Your task to perform on an android device: Do I have any events this weekend? Image 0: 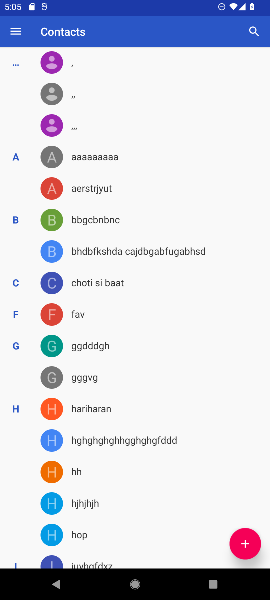
Step 0: click (232, 213)
Your task to perform on an android device: Do I have any events this weekend? Image 1: 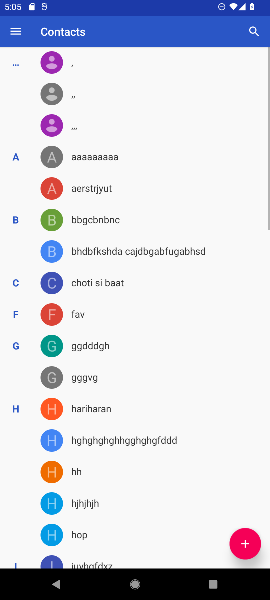
Step 1: press back button
Your task to perform on an android device: Do I have any events this weekend? Image 2: 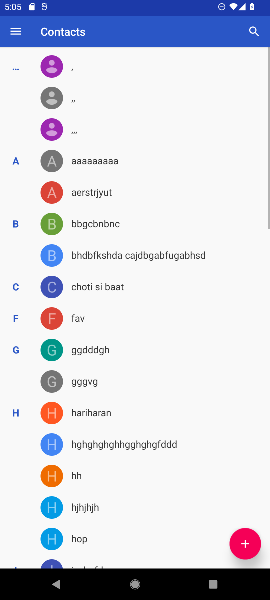
Step 2: press home button
Your task to perform on an android device: Do I have any events this weekend? Image 3: 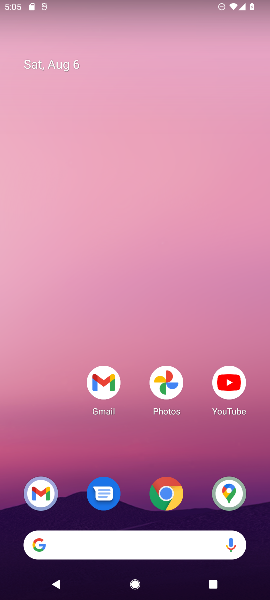
Step 3: press back button
Your task to perform on an android device: Do I have any events this weekend? Image 4: 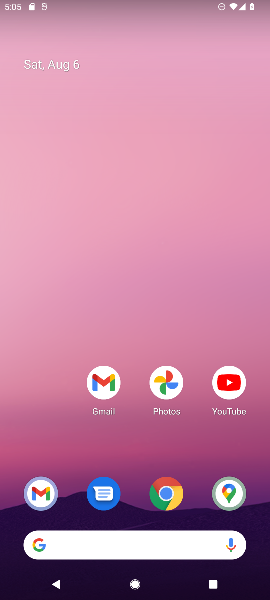
Step 4: drag from (151, 392) to (104, 42)
Your task to perform on an android device: Do I have any events this weekend? Image 5: 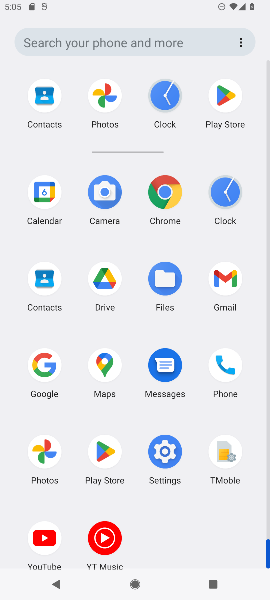
Step 5: click (104, 362)
Your task to perform on an android device: Do I have any events this weekend? Image 6: 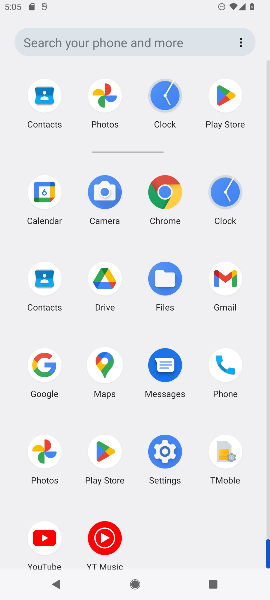
Step 6: click (104, 362)
Your task to perform on an android device: Do I have any events this weekend? Image 7: 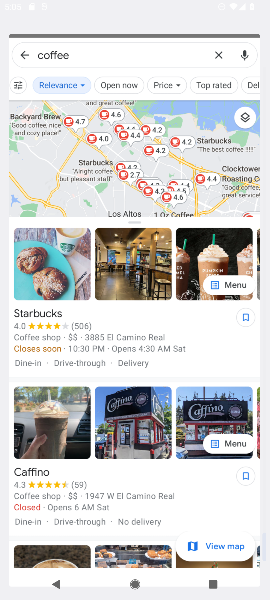
Step 7: click (106, 368)
Your task to perform on an android device: Do I have any events this weekend? Image 8: 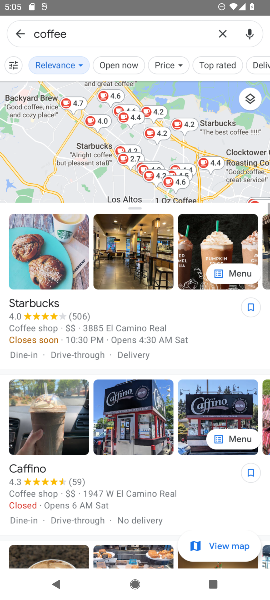
Step 8: click (106, 368)
Your task to perform on an android device: Do I have any events this weekend? Image 9: 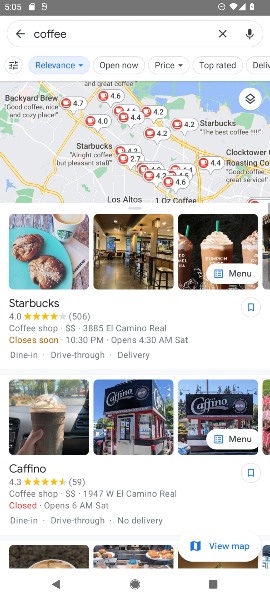
Step 9: click (106, 368)
Your task to perform on an android device: Do I have any events this weekend? Image 10: 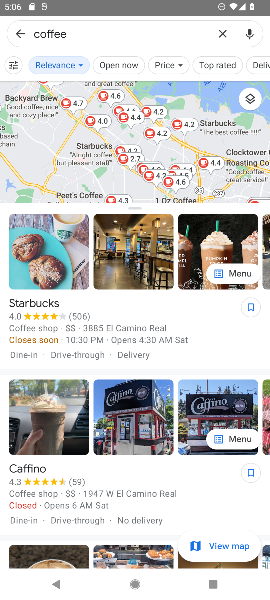
Step 10: click (21, 30)
Your task to perform on an android device: Do I have any events this weekend? Image 11: 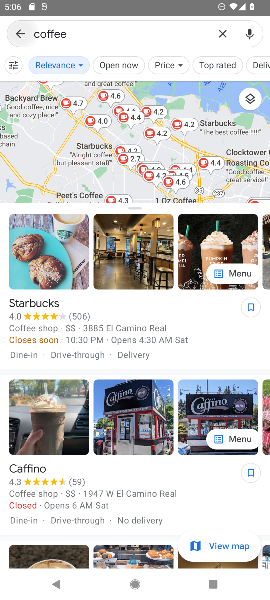
Step 11: click (21, 30)
Your task to perform on an android device: Do I have any events this weekend? Image 12: 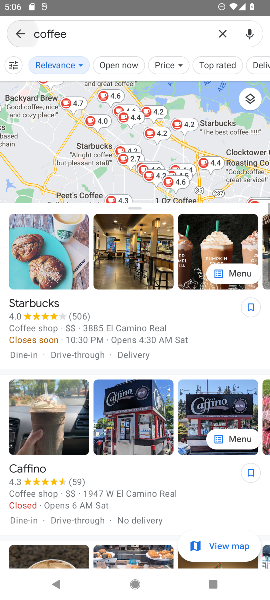
Step 12: click (21, 30)
Your task to perform on an android device: Do I have any events this weekend? Image 13: 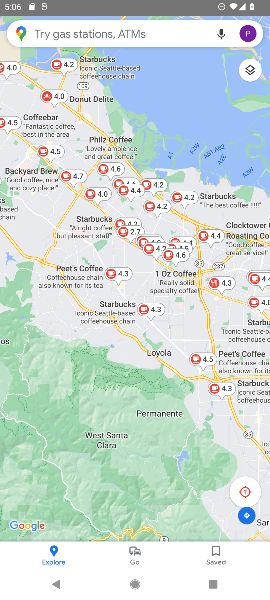
Step 13: click (21, 30)
Your task to perform on an android device: Do I have any events this weekend? Image 14: 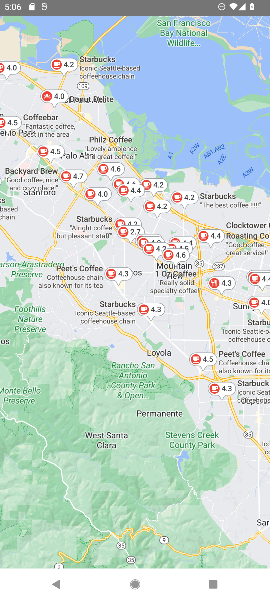
Step 14: click (21, 31)
Your task to perform on an android device: Do I have any events this weekend? Image 15: 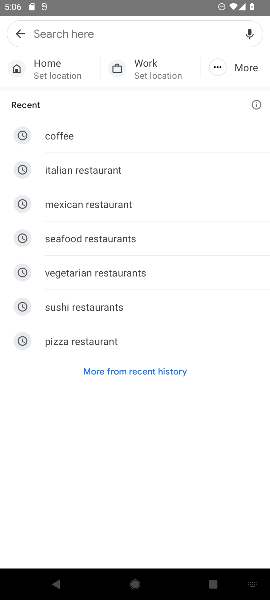
Step 15: press back button
Your task to perform on an android device: Do I have any events this weekend? Image 16: 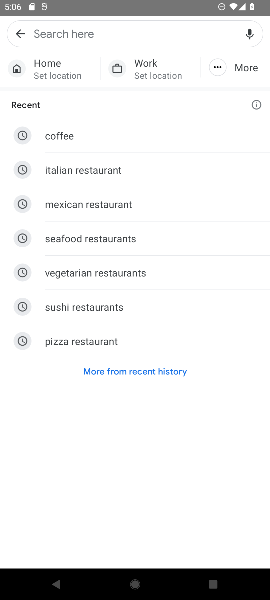
Step 16: press back button
Your task to perform on an android device: Do I have any events this weekend? Image 17: 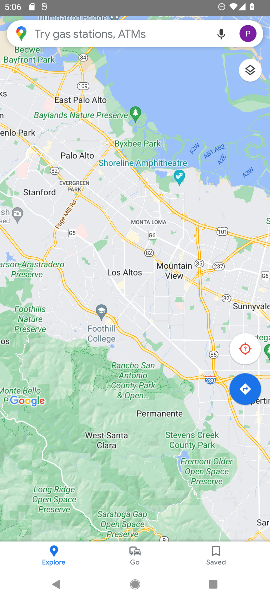
Step 17: press back button
Your task to perform on an android device: Do I have any events this weekend? Image 18: 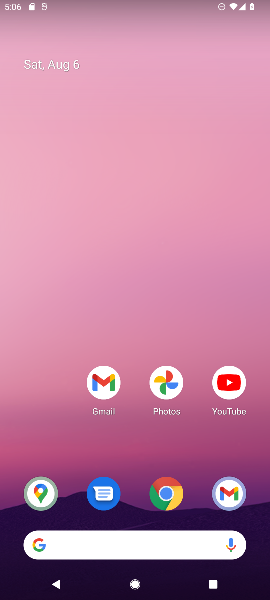
Step 18: press home button
Your task to perform on an android device: Do I have any events this weekend? Image 19: 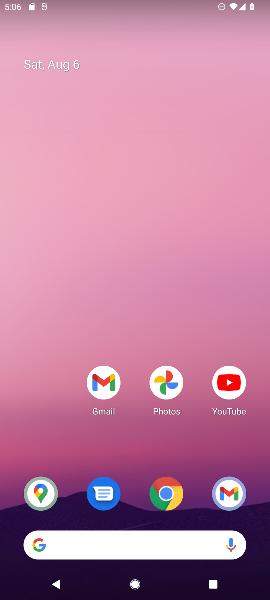
Step 19: drag from (185, 501) to (179, 156)
Your task to perform on an android device: Do I have any events this weekend? Image 20: 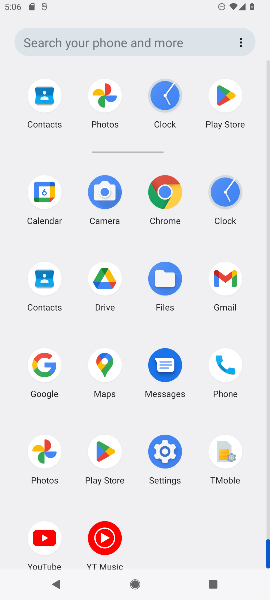
Step 20: drag from (163, 480) to (147, 132)
Your task to perform on an android device: Do I have any events this weekend? Image 21: 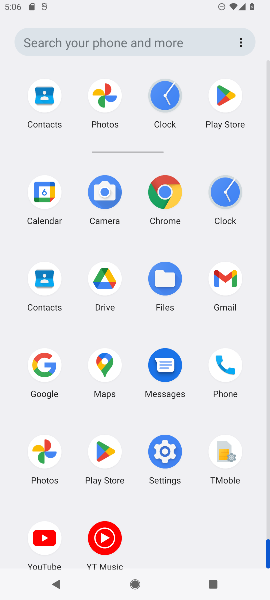
Step 21: click (46, 198)
Your task to perform on an android device: Do I have any events this weekend? Image 22: 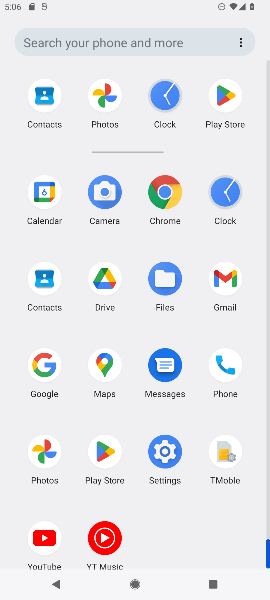
Step 22: click (44, 197)
Your task to perform on an android device: Do I have any events this weekend? Image 23: 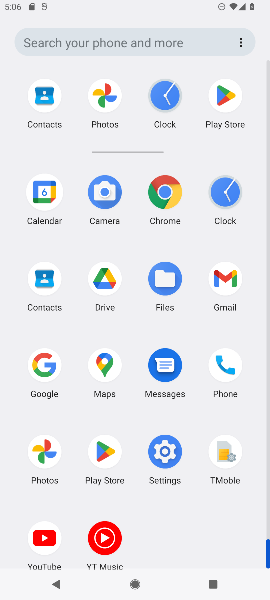
Step 23: click (44, 197)
Your task to perform on an android device: Do I have any events this weekend? Image 24: 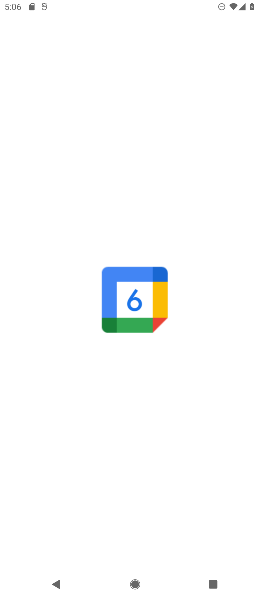
Step 24: click (44, 197)
Your task to perform on an android device: Do I have any events this weekend? Image 25: 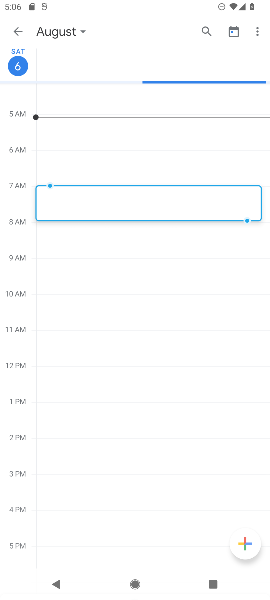
Step 25: click (44, 197)
Your task to perform on an android device: Do I have any events this weekend? Image 26: 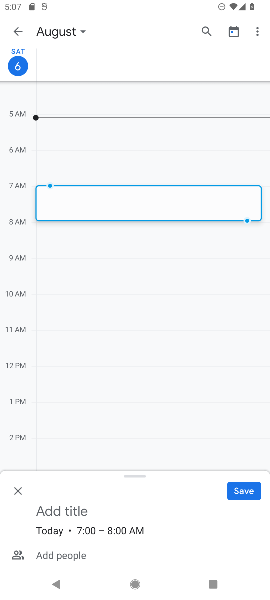
Step 26: click (67, 86)
Your task to perform on an android device: Do I have any events this weekend? Image 27: 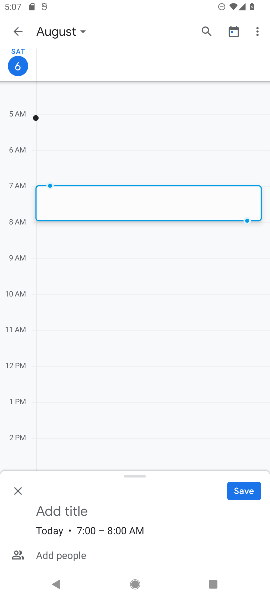
Step 27: click (67, 87)
Your task to perform on an android device: Do I have any events this weekend? Image 28: 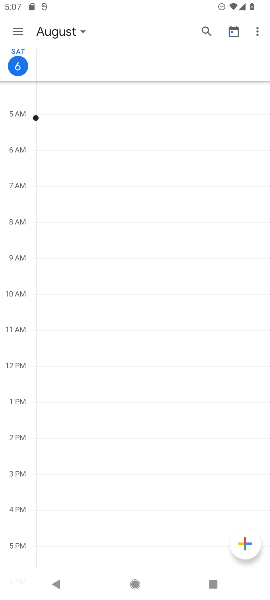
Step 28: click (82, 30)
Your task to perform on an android device: Do I have any events this weekend? Image 29: 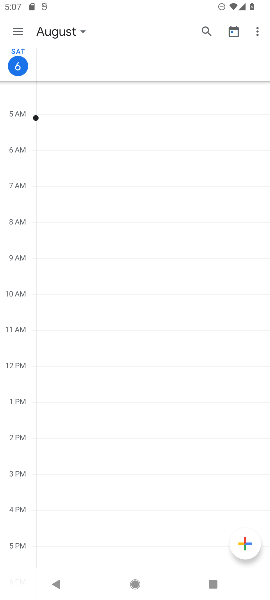
Step 29: click (82, 30)
Your task to perform on an android device: Do I have any events this weekend? Image 30: 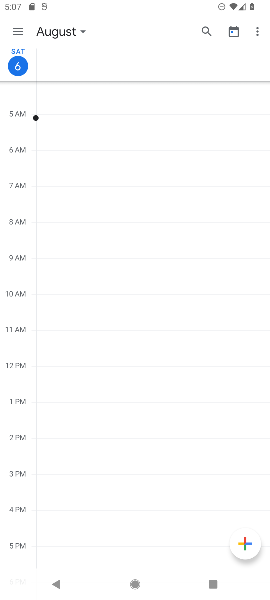
Step 30: click (79, 29)
Your task to perform on an android device: Do I have any events this weekend? Image 31: 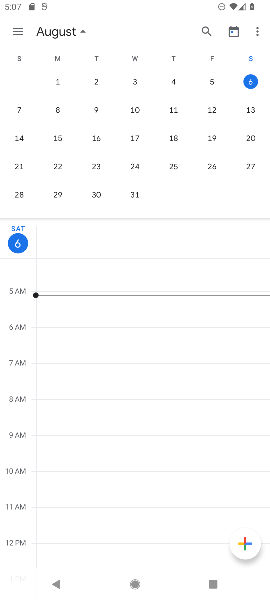
Step 31: click (251, 114)
Your task to perform on an android device: Do I have any events this weekend? Image 32: 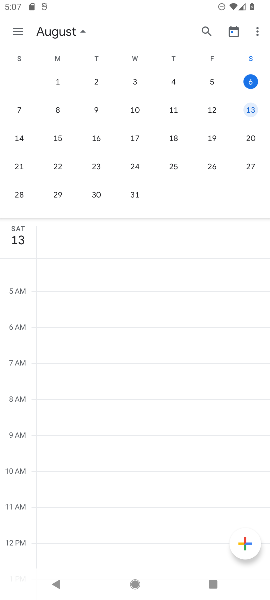
Step 32: task complete